Your task to perform on an android device: open wifi settings Image 0: 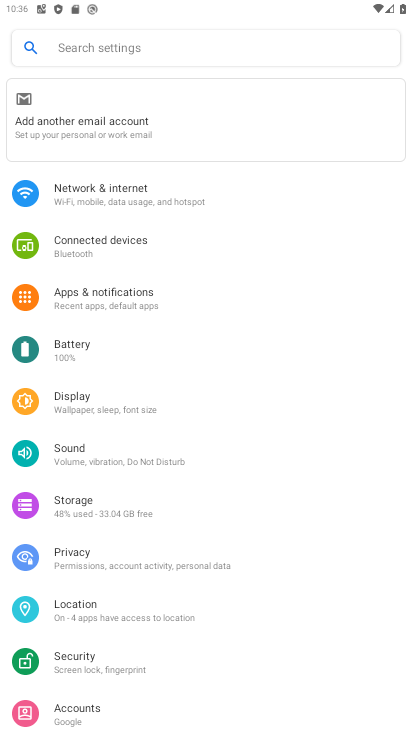
Step 0: click (138, 190)
Your task to perform on an android device: open wifi settings Image 1: 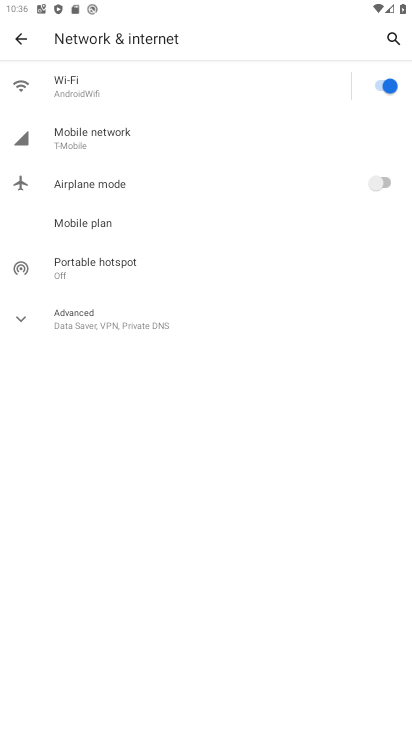
Step 1: click (108, 85)
Your task to perform on an android device: open wifi settings Image 2: 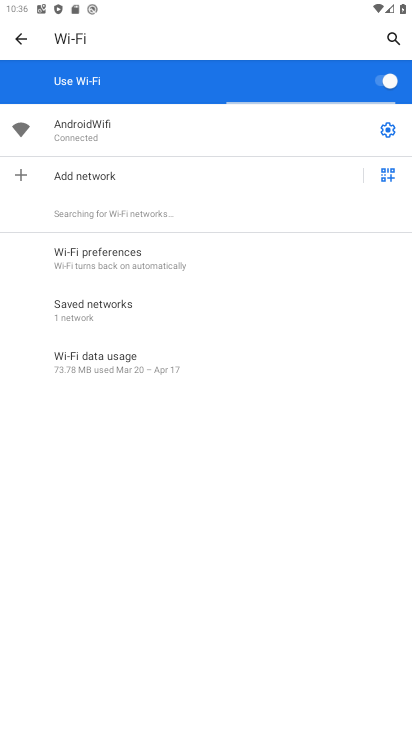
Step 2: task complete